Your task to perform on an android device: turn off picture-in-picture Image 0: 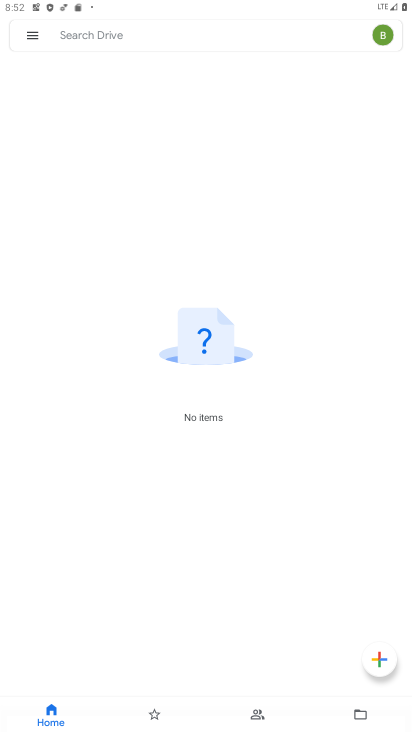
Step 0: press home button
Your task to perform on an android device: turn off picture-in-picture Image 1: 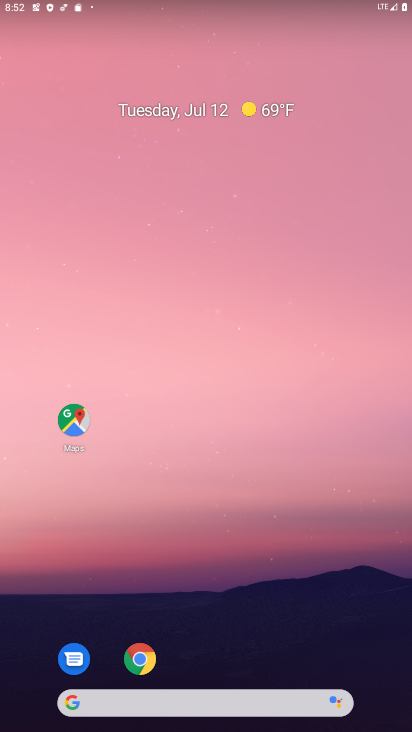
Step 1: drag from (218, 723) to (217, 208)
Your task to perform on an android device: turn off picture-in-picture Image 2: 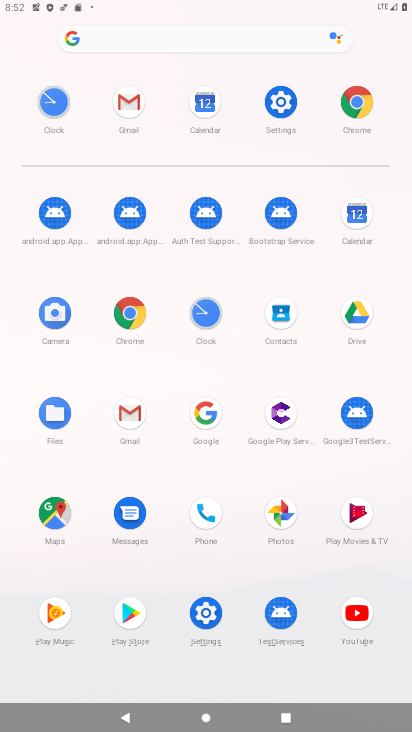
Step 2: click (277, 103)
Your task to perform on an android device: turn off picture-in-picture Image 3: 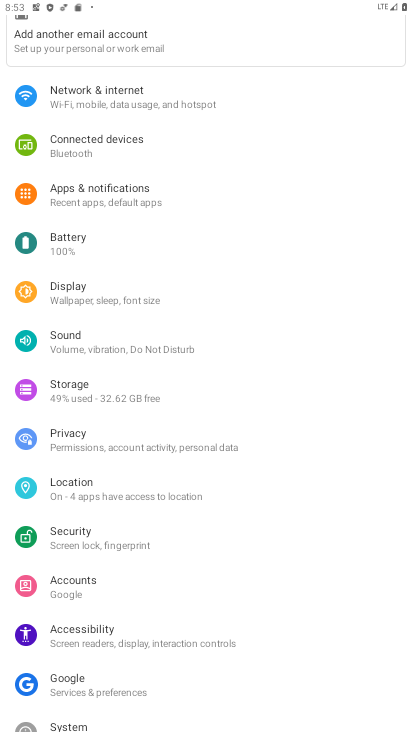
Step 3: click (92, 197)
Your task to perform on an android device: turn off picture-in-picture Image 4: 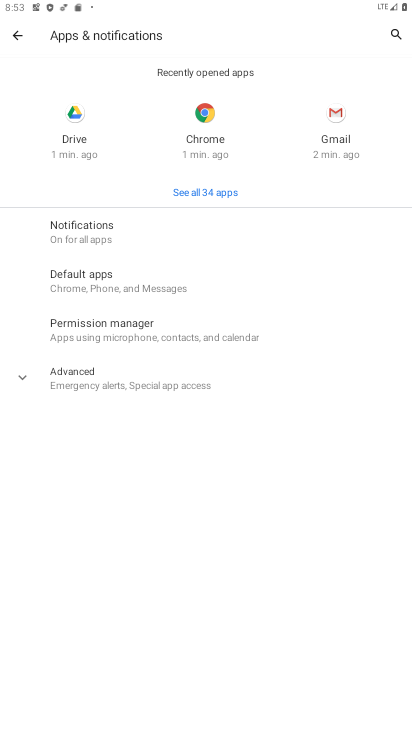
Step 4: click (88, 383)
Your task to perform on an android device: turn off picture-in-picture Image 5: 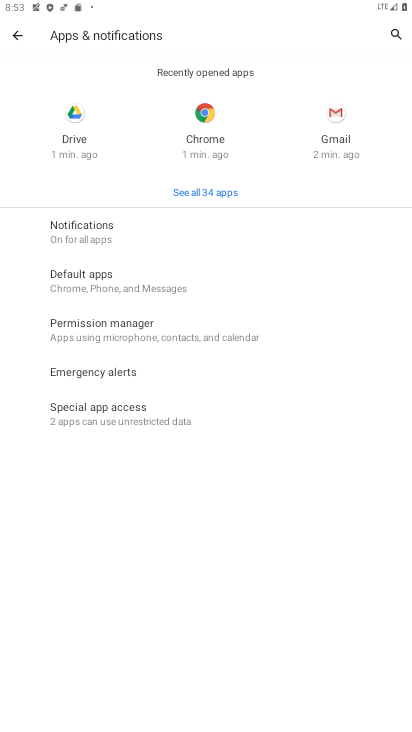
Step 5: click (121, 417)
Your task to perform on an android device: turn off picture-in-picture Image 6: 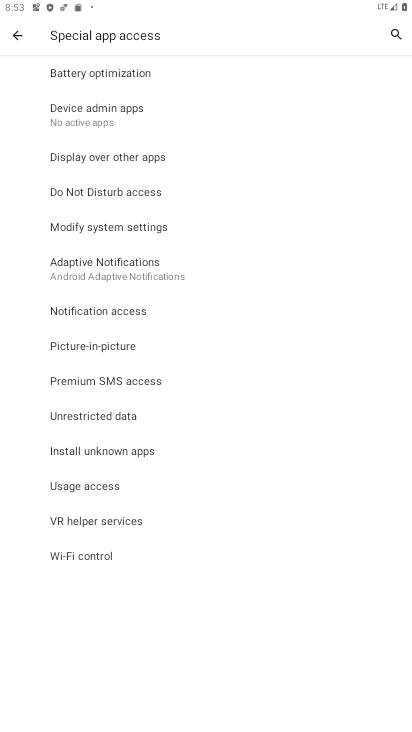
Step 6: click (118, 343)
Your task to perform on an android device: turn off picture-in-picture Image 7: 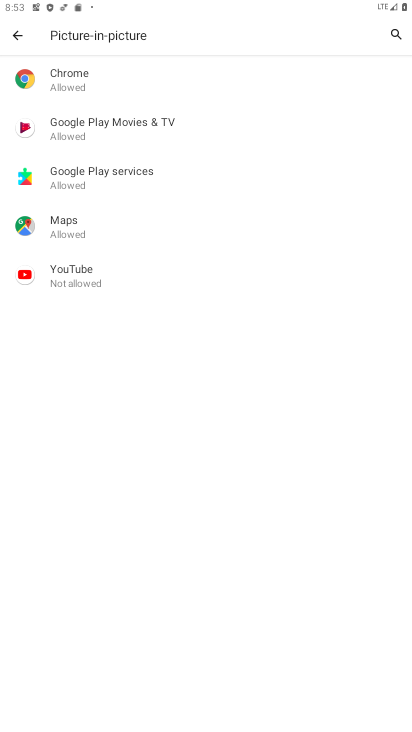
Step 7: click (79, 267)
Your task to perform on an android device: turn off picture-in-picture Image 8: 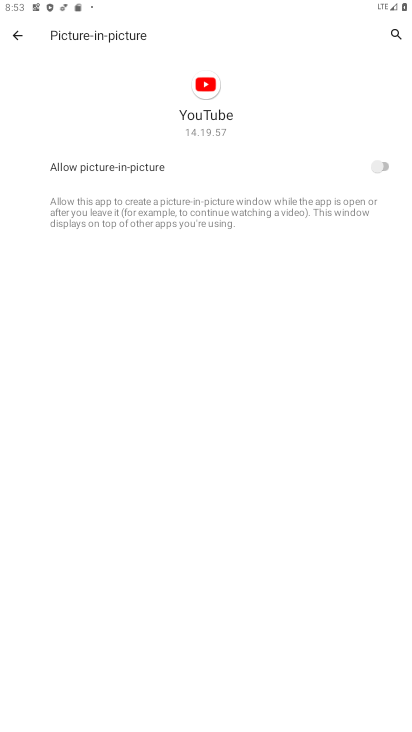
Step 8: task complete